Your task to perform on an android device: uninstall "Gboard" Image 0: 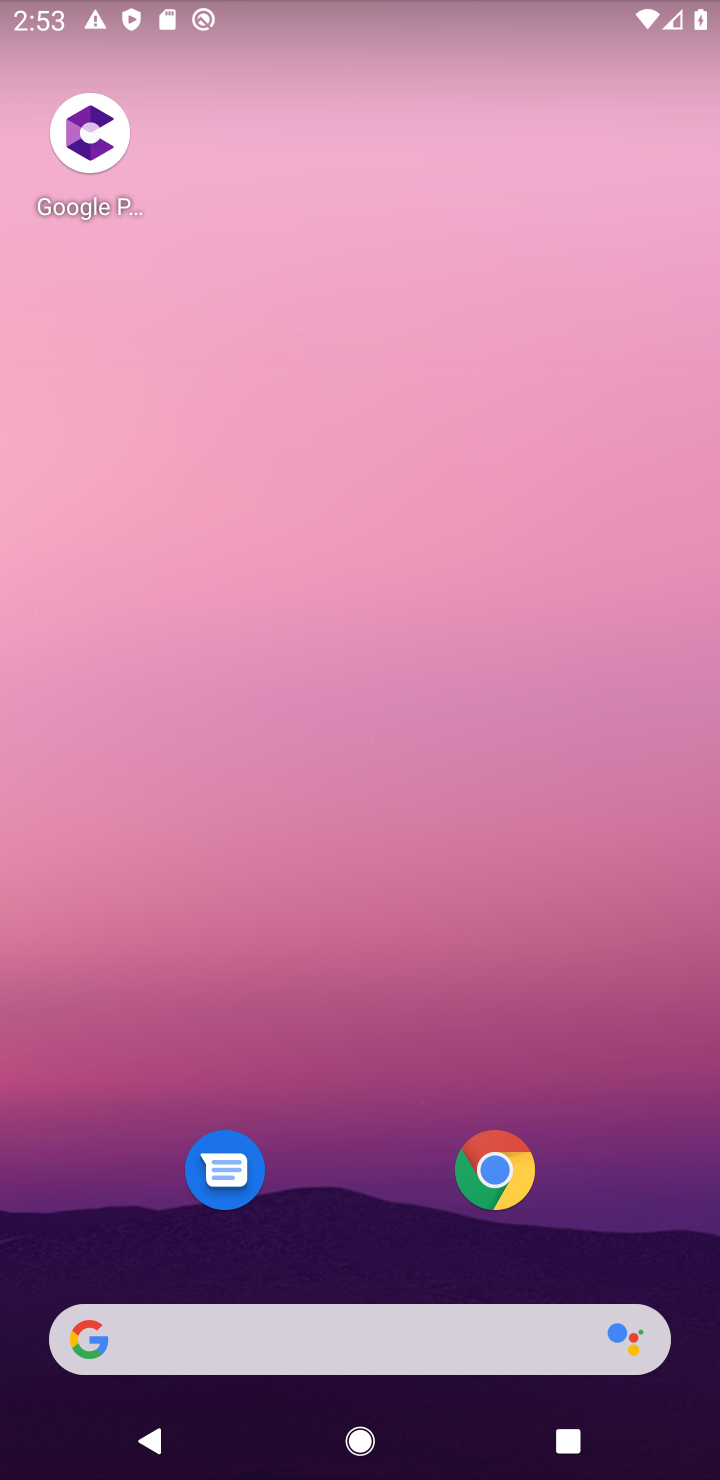
Step 0: drag from (297, 329) to (327, 0)
Your task to perform on an android device: uninstall "Gboard" Image 1: 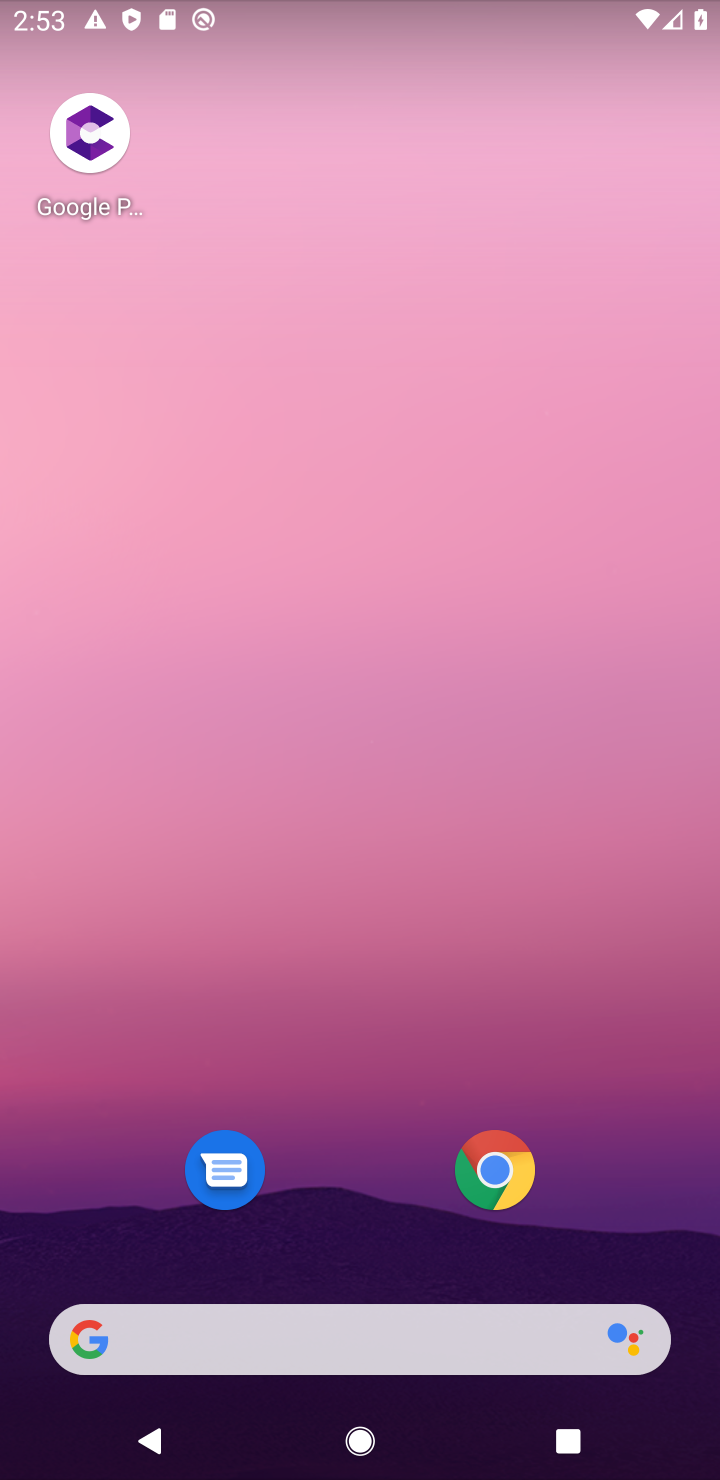
Step 1: task complete